Your task to perform on an android device: open app "Booking.com: Hotels and more" (install if not already installed) Image 0: 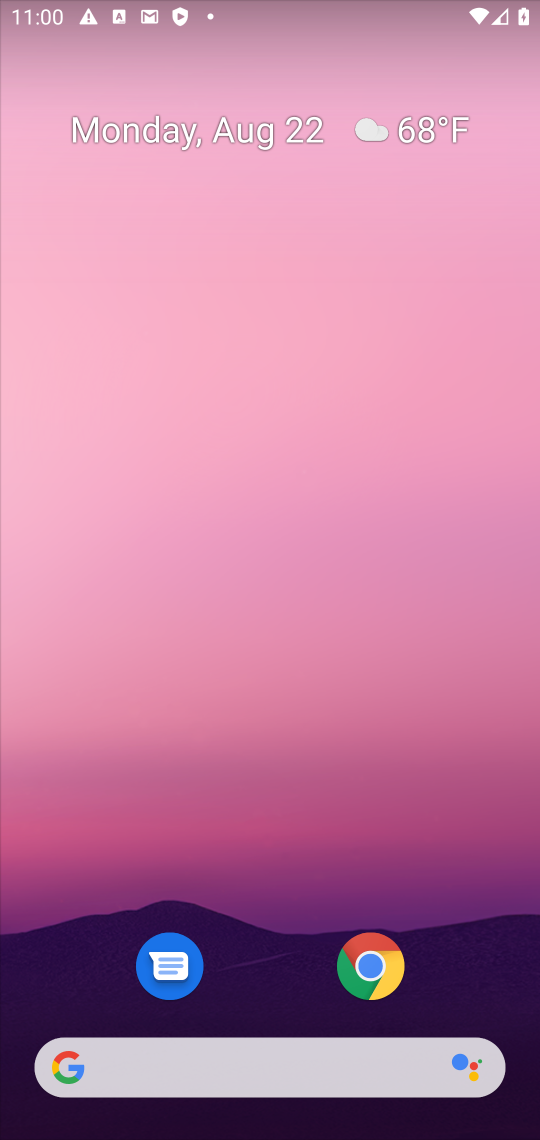
Step 0: drag from (464, 855) to (460, 105)
Your task to perform on an android device: open app "Booking.com: Hotels and more" (install if not already installed) Image 1: 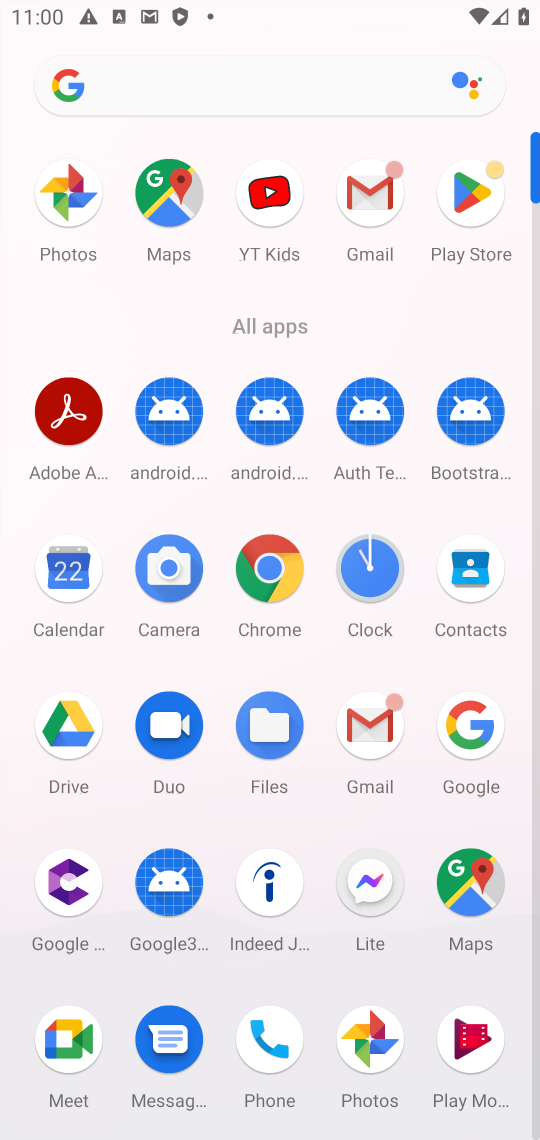
Step 1: click (466, 187)
Your task to perform on an android device: open app "Booking.com: Hotels and more" (install if not already installed) Image 2: 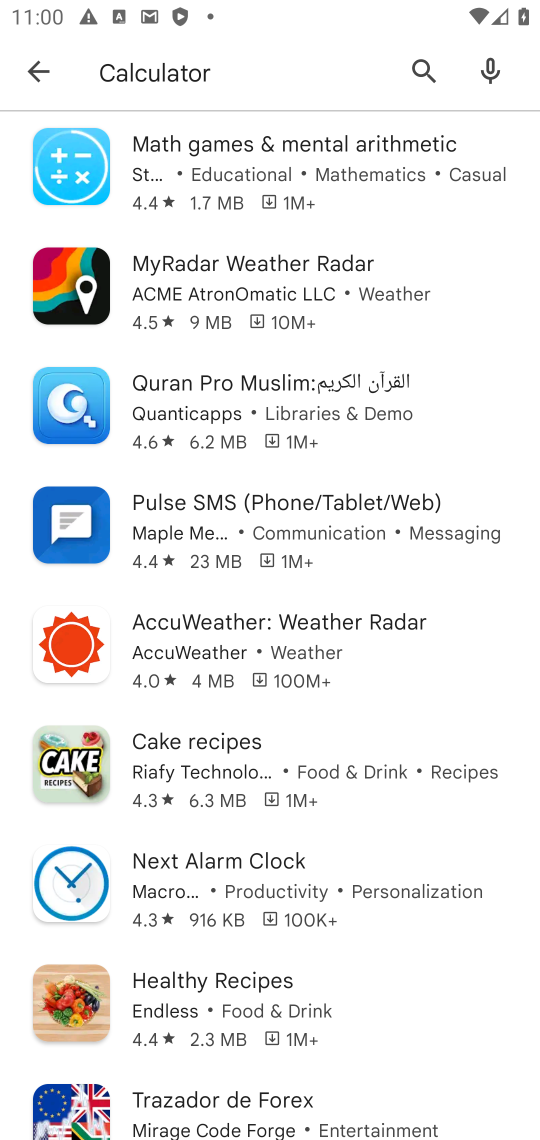
Step 2: press back button
Your task to perform on an android device: open app "Booking.com: Hotels and more" (install if not already installed) Image 3: 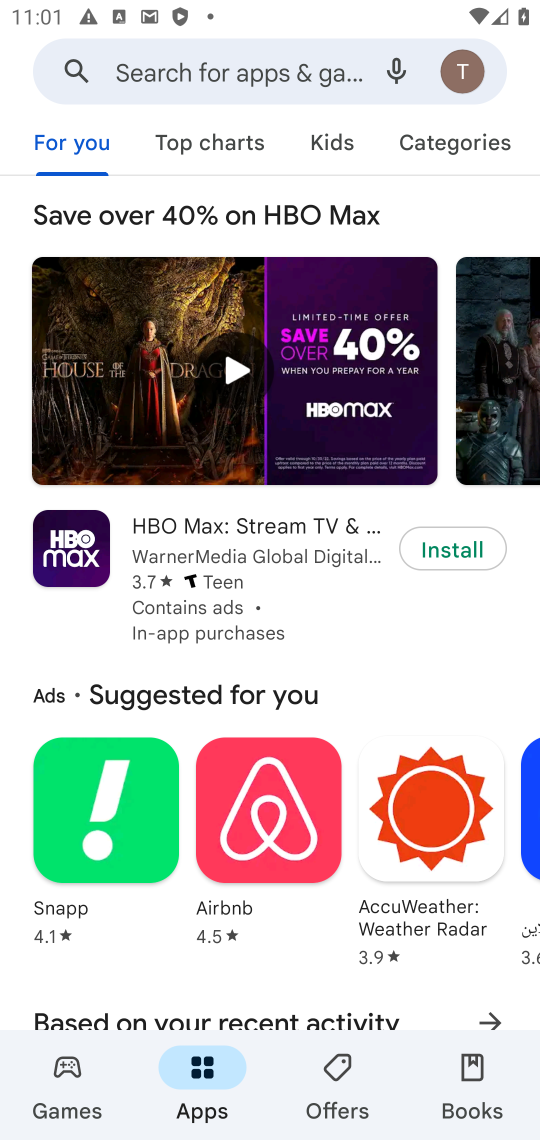
Step 3: click (233, 78)
Your task to perform on an android device: open app "Booking.com: Hotels and more" (install if not already installed) Image 4: 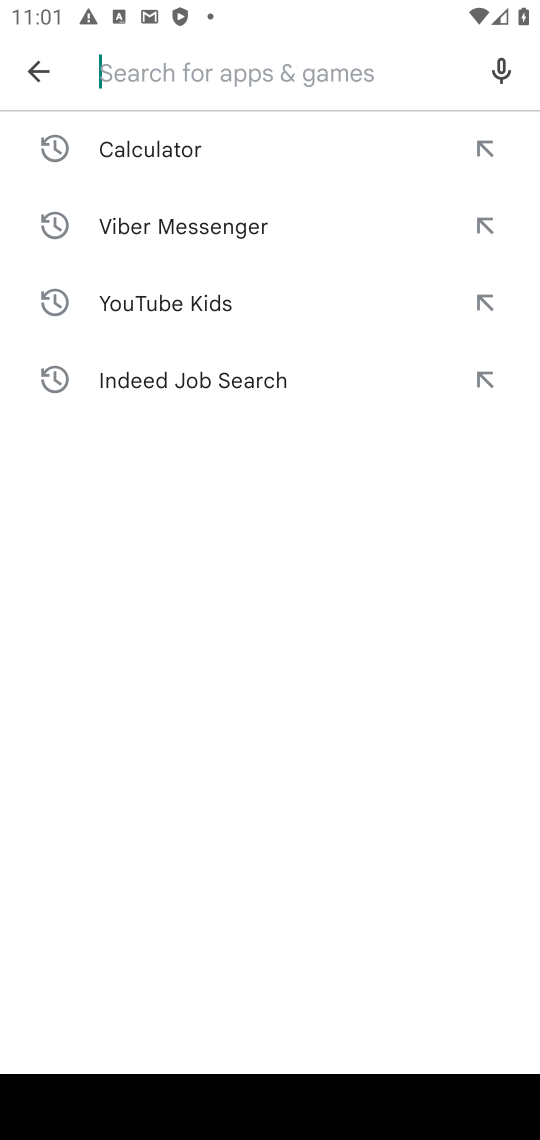
Step 4: type "Booking.com: Hotels and more"
Your task to perform on an android device: open app "Booking.com: Hotels and more" (install if not already installed) Image 5: 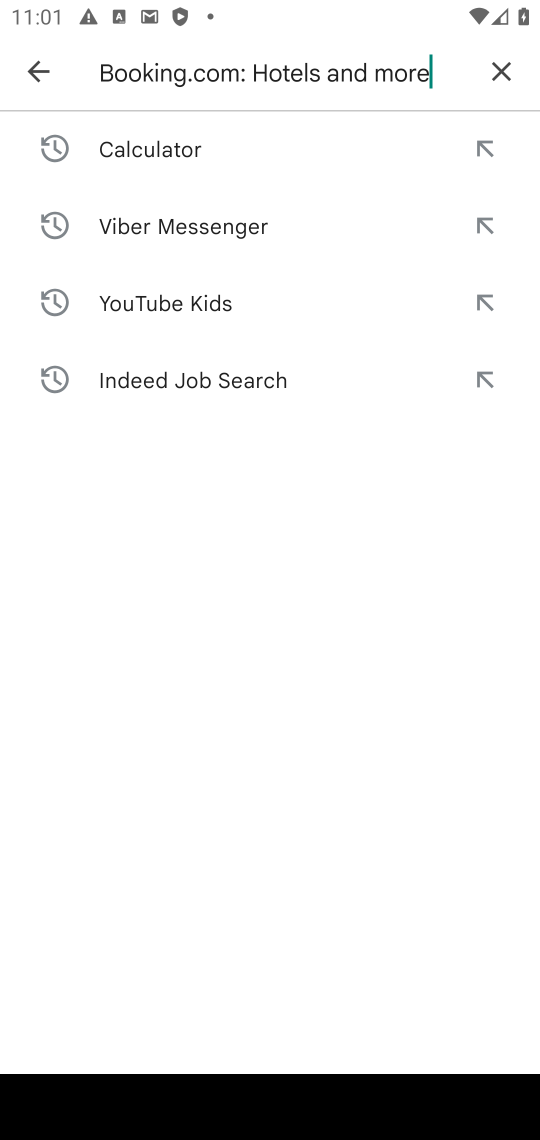
Step 5: press enter
Your task to perform on an android device: open app "Booking.com: Hotels and more" (install if not already installed) Image 6: 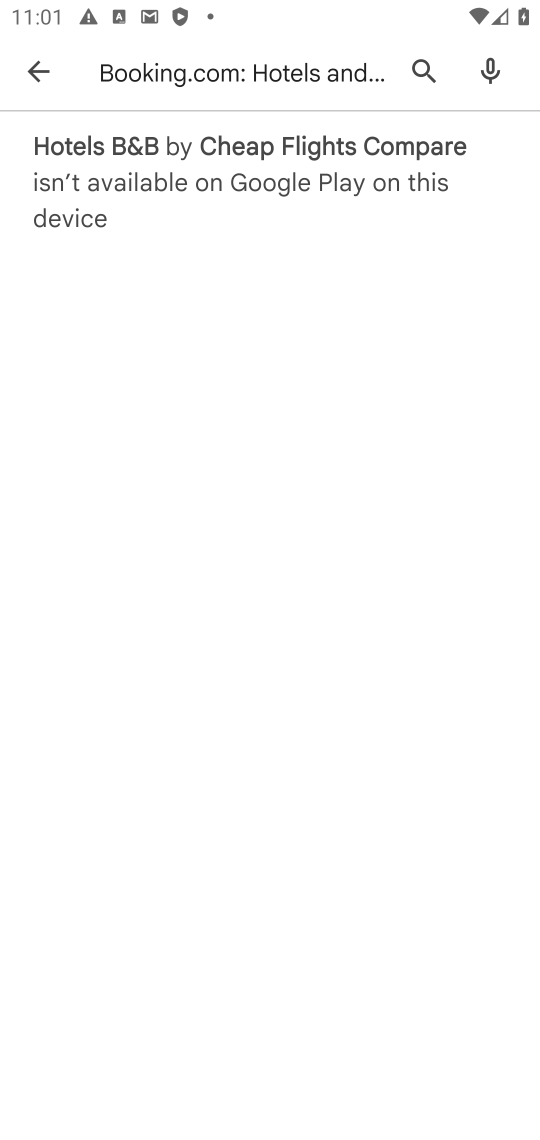
Step 6: task complete